Your task to perform on an android device: turn off location Image 0: 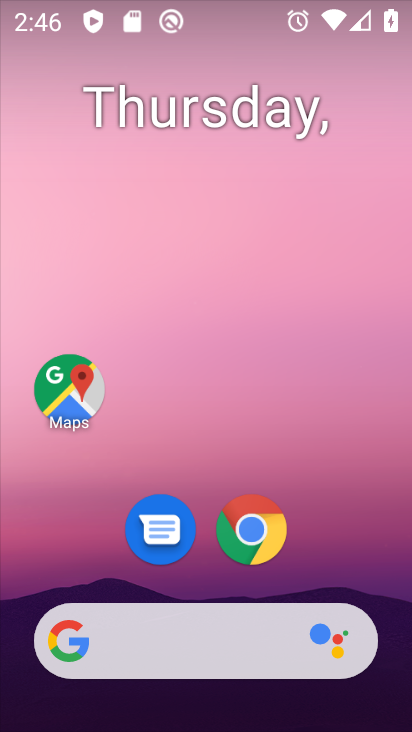
Step 0: drag from (186, 720) to (260, 112)
Your task to perform on an android device: turn off location Image 1: 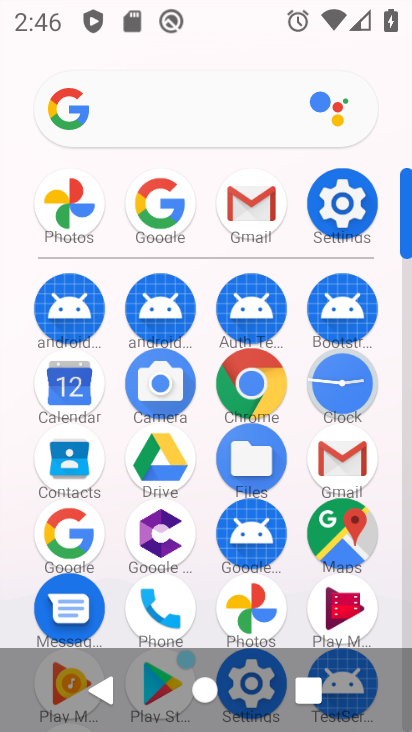
Step 1: click (351, 172)
Your task to perform on an android device: turn off location Image 2: 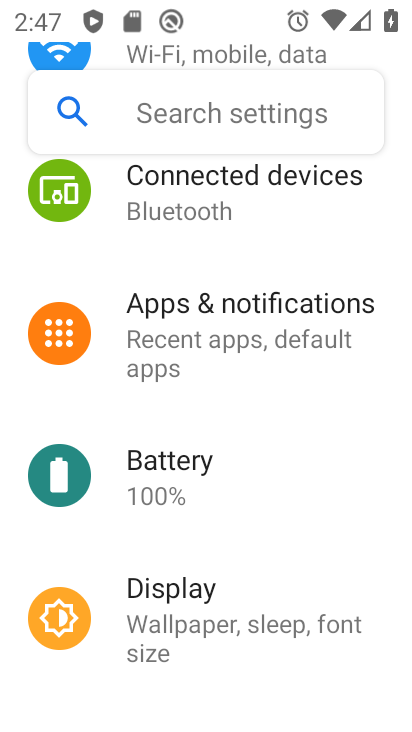
Step 2: drag from (243, 637) to (248, 180)
Your task to perform on an android device: turn off location Image 3: 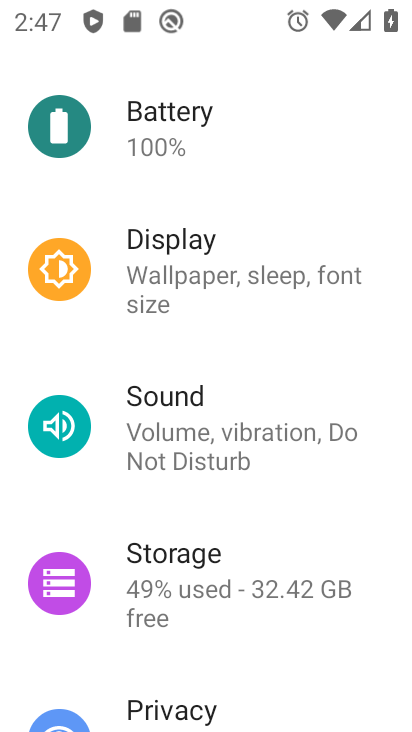
Step 3: drag from (153, 665) to (195, 244)
Your task to perform on an android device: turn off location Image 4: 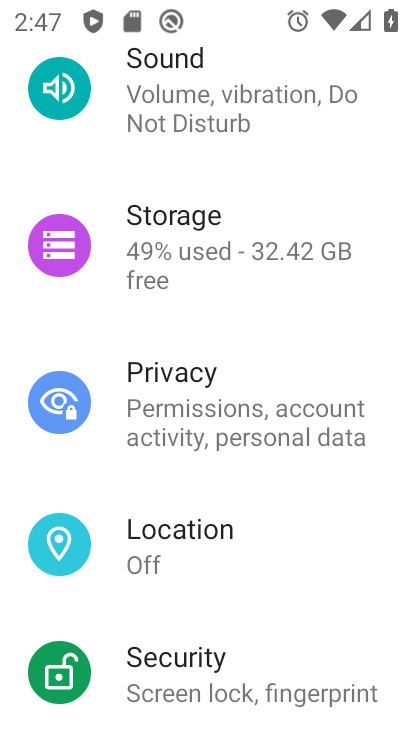
Step 4: click (200, 542)
Your task to perform on an android device: turn off location Image 5: 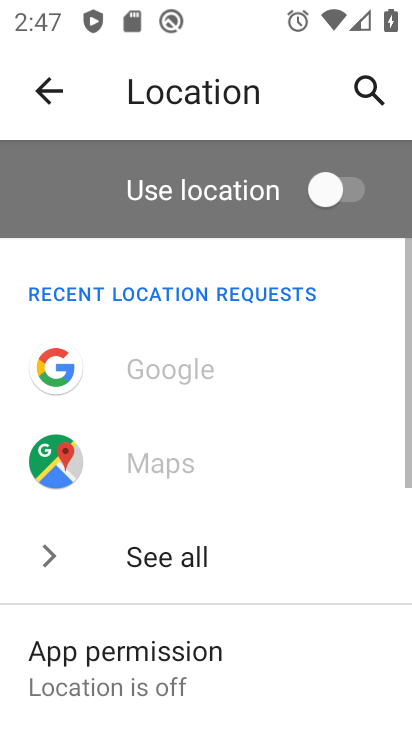
Step 5: task complete